Your task to perform on an android device: Open Reddit.com Image 0: 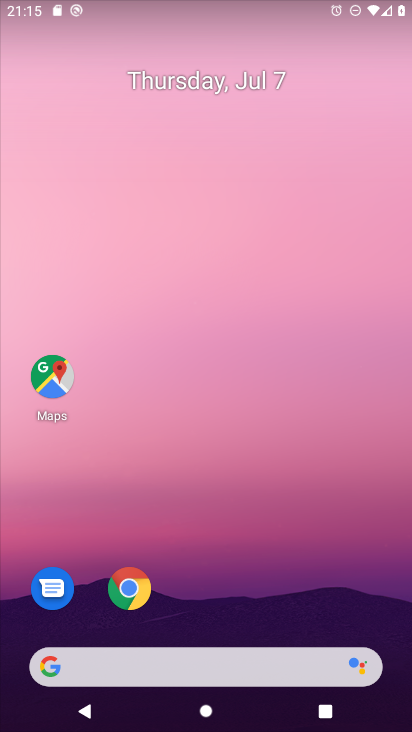
Step 0: drag from (266, 617) to (210, 173)
Your task to perform on an android device: Open Reddit.com Image 1: 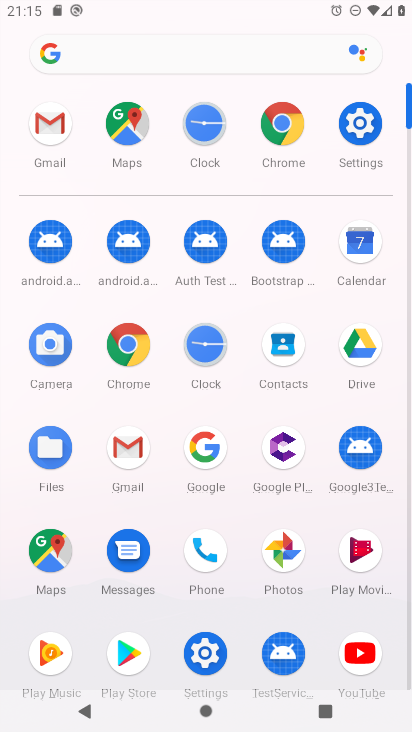
Step 1: click (287, 111)
Your task to perform on an android device: Open Reddit.com Image 2: 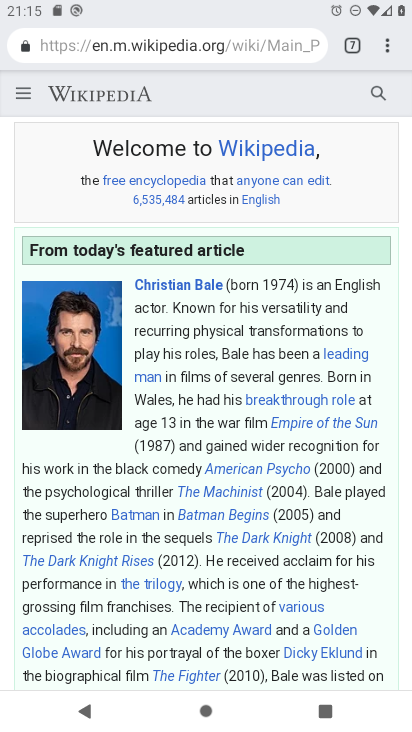
Step 2: click (390, 36)
Your task to perform on an android device: Open Reddit.com Image 3: 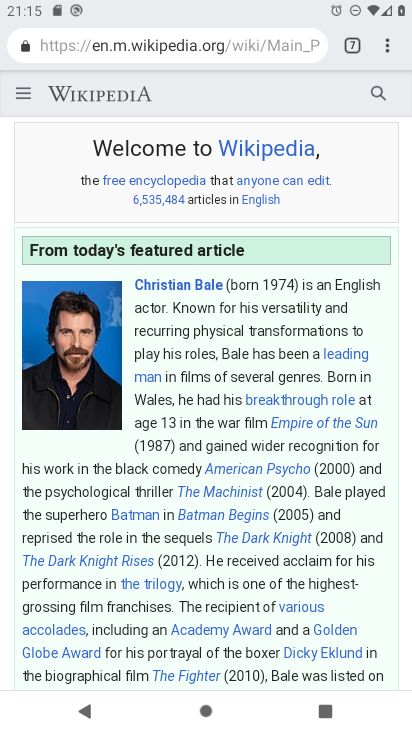
Step 3: click (402, 43)
Your task to perform on an android device: Open Reddit.com Image 4: 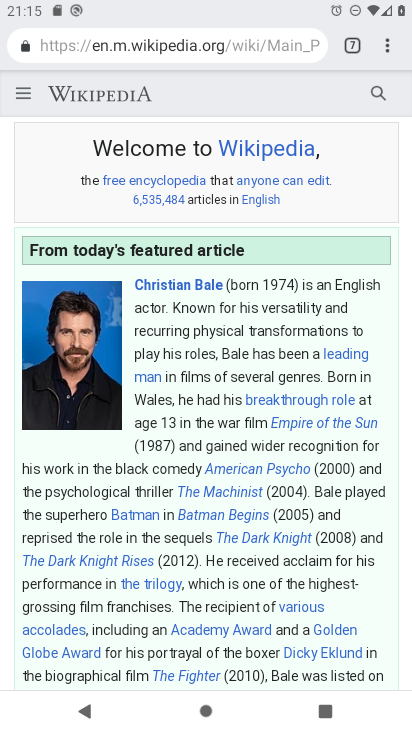
Step 4: click (395, 36)
Your task to perform on an android device: Open Reddit.com Image 5: 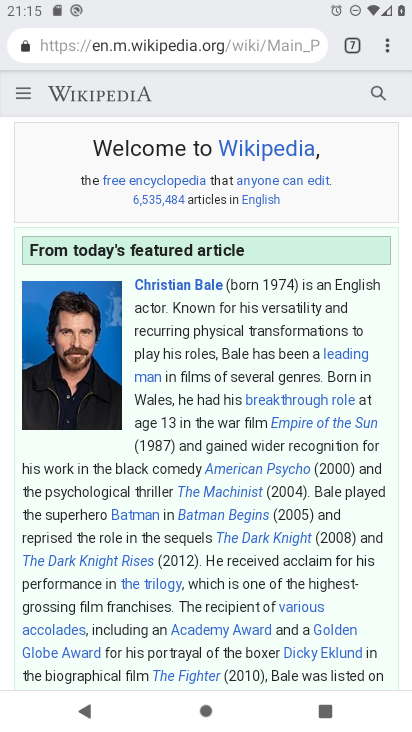
Step 5: click (392, 49)
Your task to perform on an android device: Open Reddit.com Image 6: 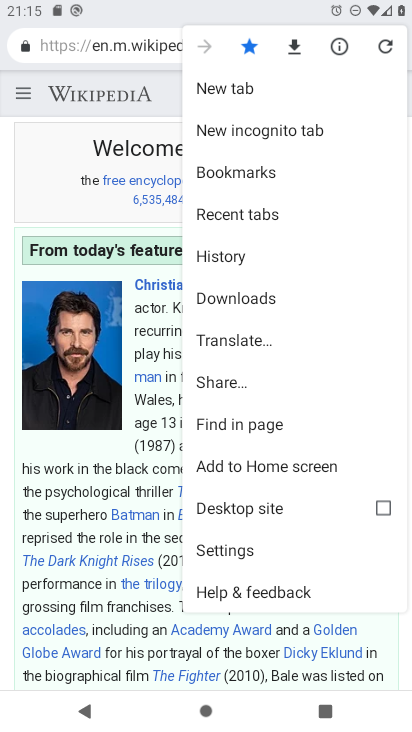
Step 6: click (262, 93)
Your task to perform on an android device: Open Reddit.com Image 7: 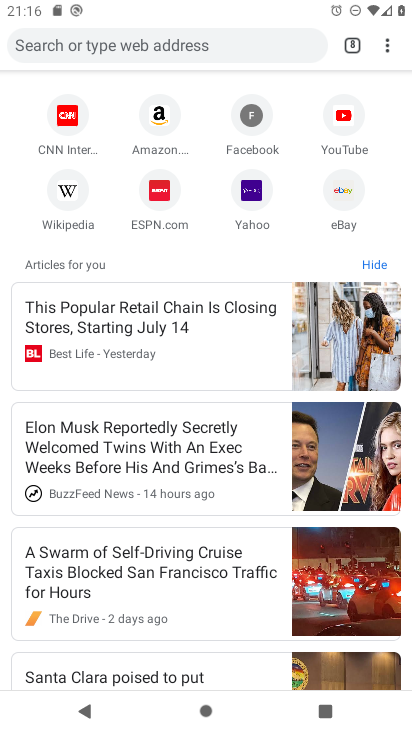
Step 7: click (204, 47)
Your task to perform on an android device: Open Reddit.com Image 8: 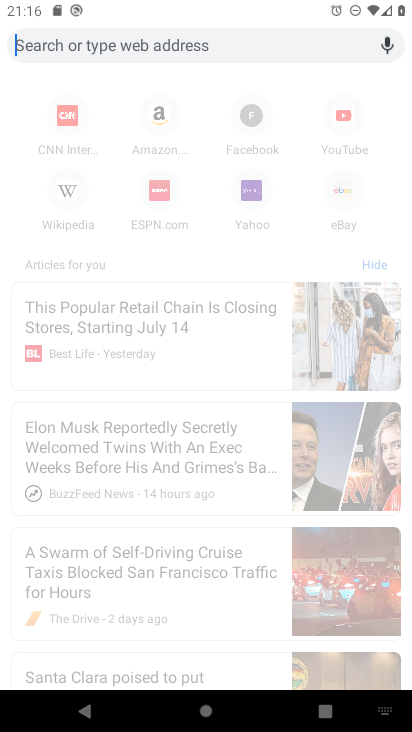
Step 8: type " Reddit.com "
Your task to perform on an android device: Open Reddit.com Image 9: 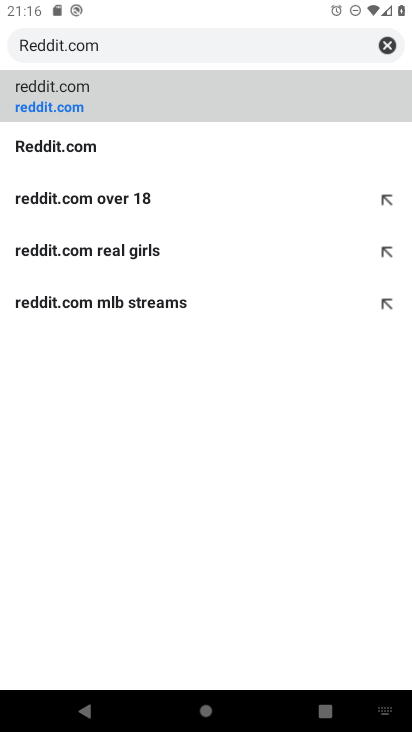
Step 9: click (76, 146)
Your task to perform on an android device: Open Reddit.com Image 10: 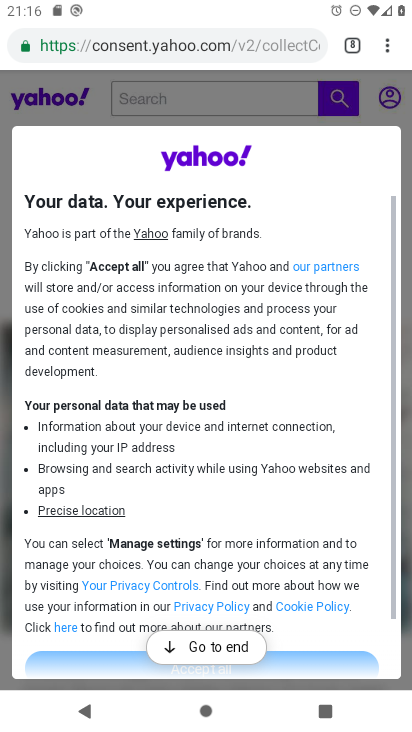
Step 10: task complete